Your task to perform on an android device: turn off notifications in google photos Image 0: 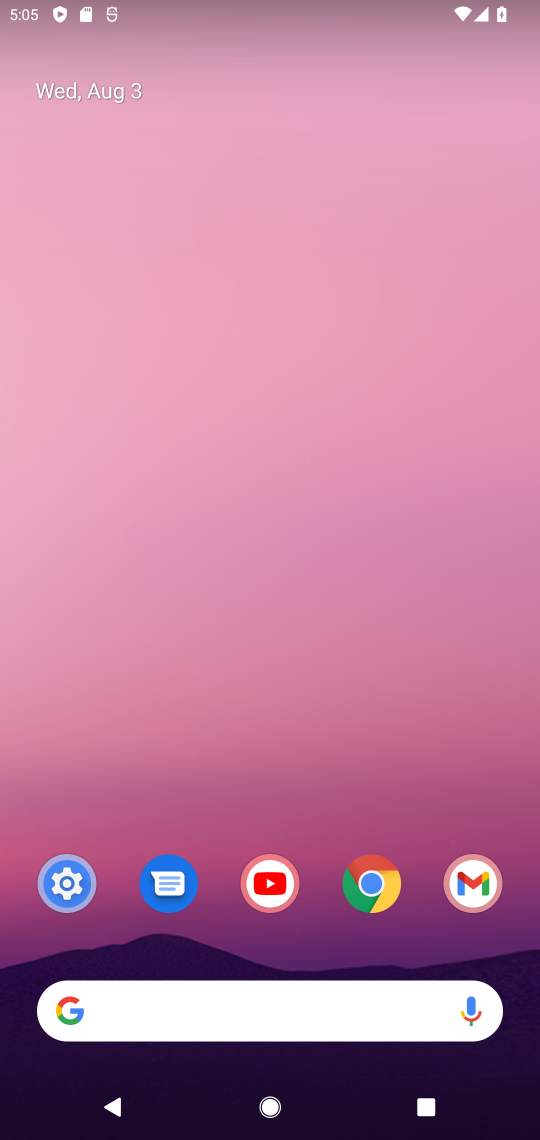
Step 0: drag from (238, 551) to (303, 95)
Your task to perform on an android device: turn off notifications in google photos Image 1: 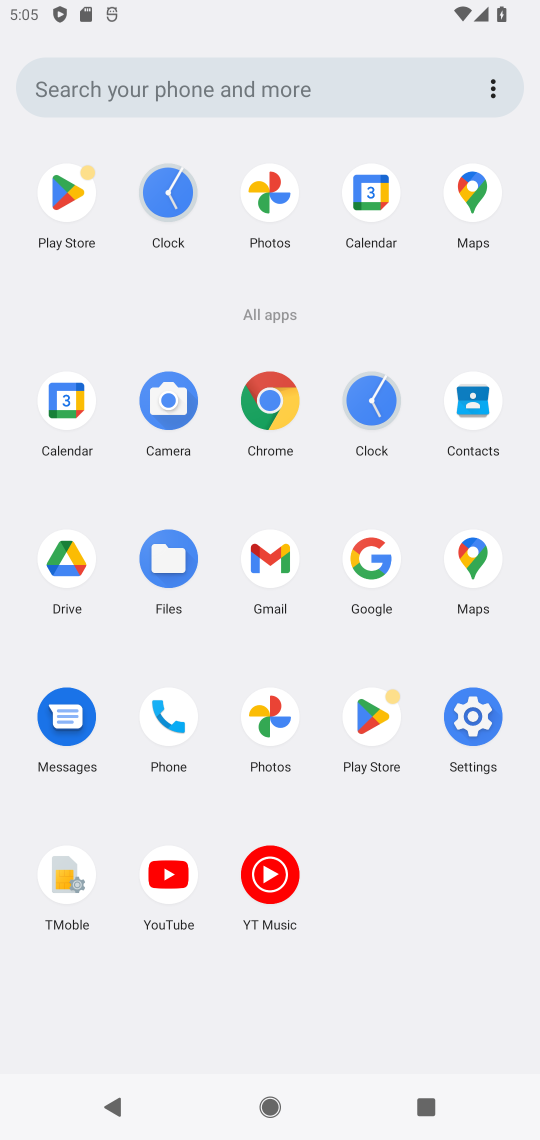
Step 1: click (263, 720)
Your task to perform on an android device: turn off notifications in google photos Image 2: 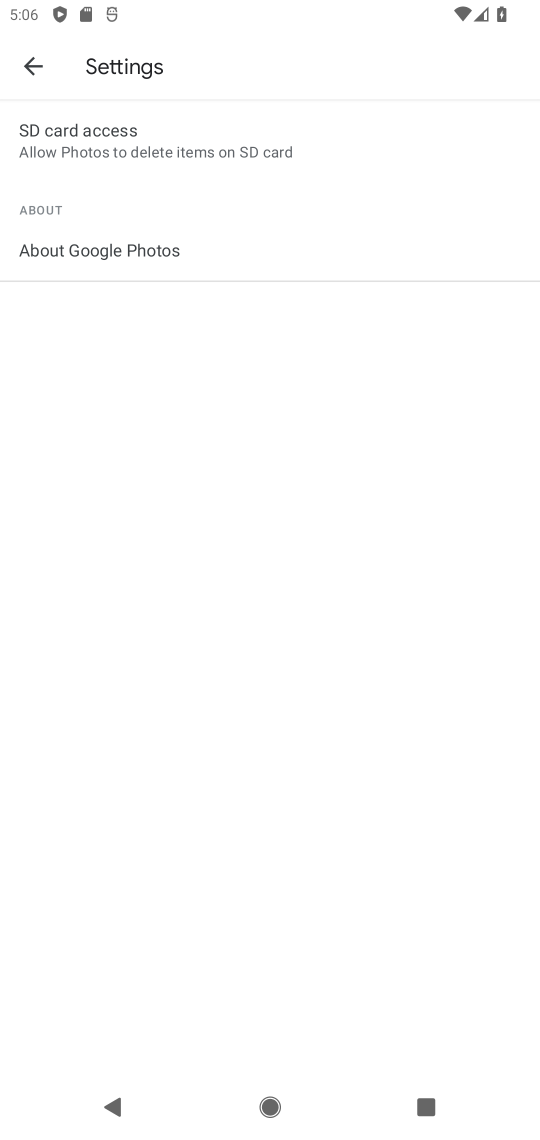
Step 2: click (23, 63)
Your task to perform on an android device: turn off notifications in google photos Image 3: 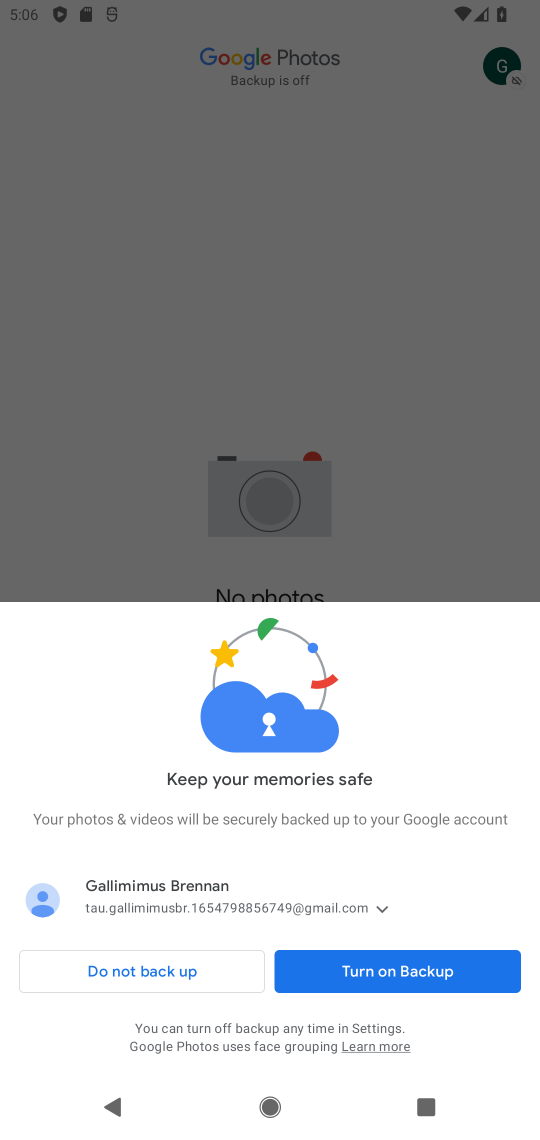
Step 3: click (377, 975)
Your task to perform on an android device: turn off notifications in google photos Image 4: 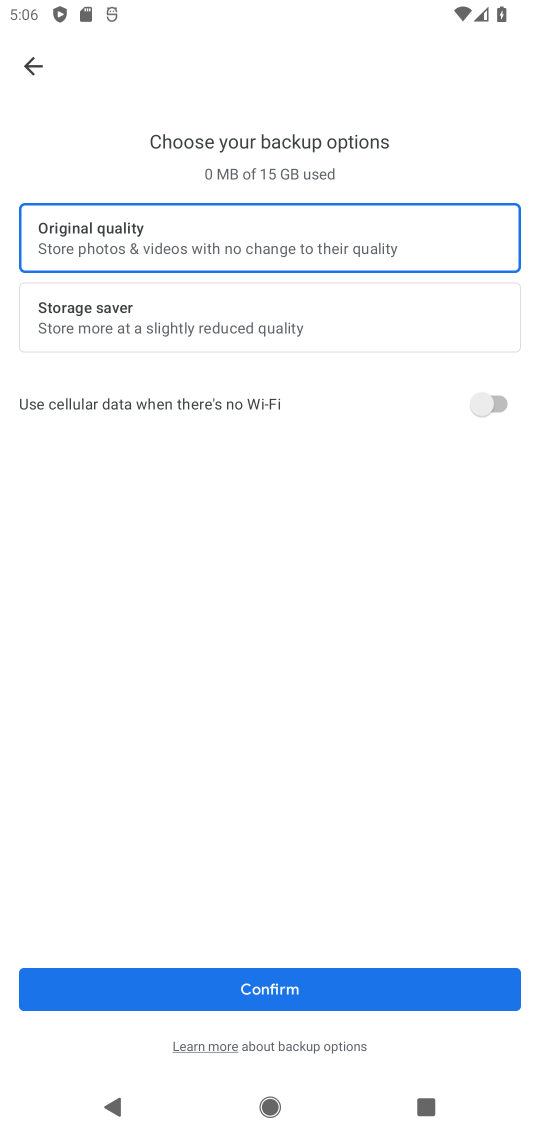
Step 4: click (308, 1001)
Your task to perform on an android device: turn off notifications in google photos Image 5: 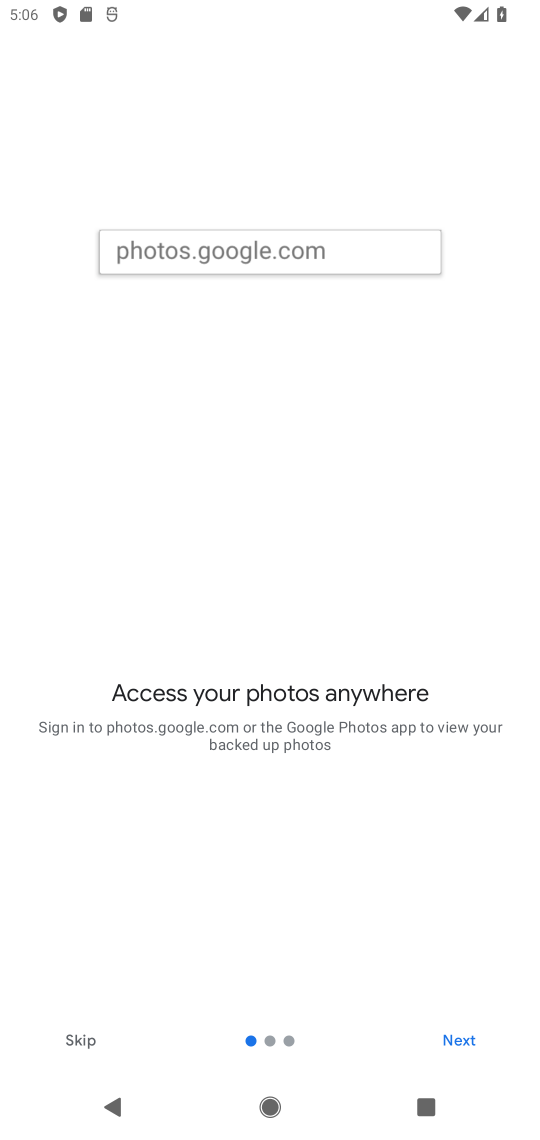
Step 5: click (445, 1043)
Your task to perform on an android device: turn off notifications in google photos Image 6: 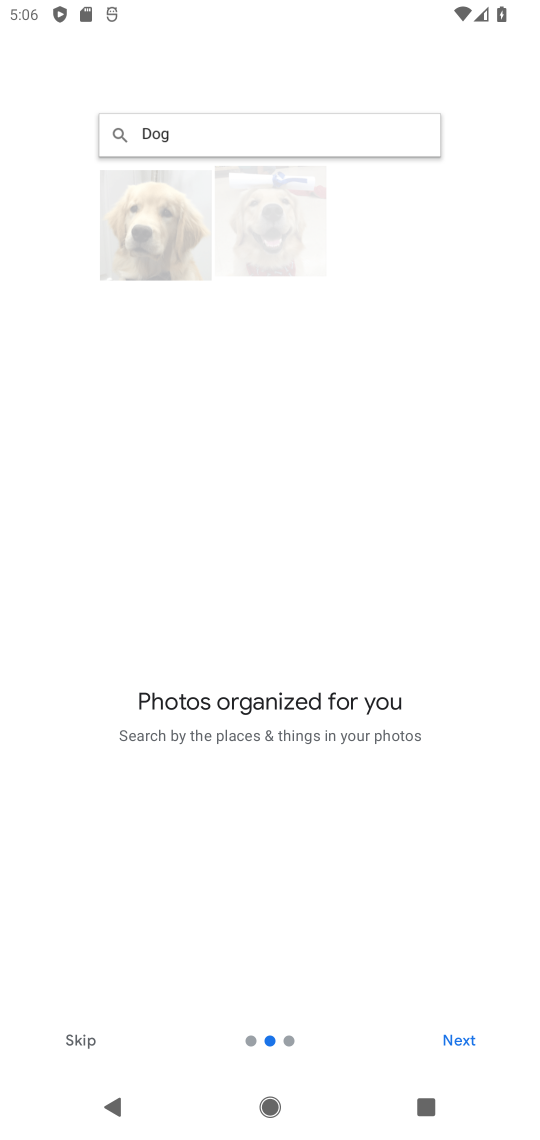
Step 6: click (445, 1043)
Your task to perform on an android device: turn off notifications in google photos Image 7: 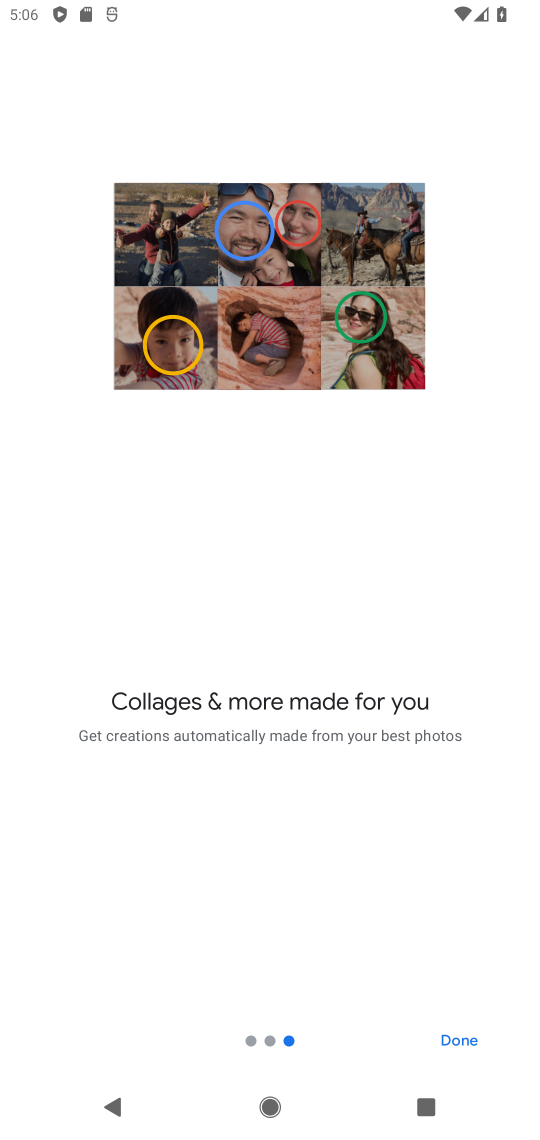
Step 7: click (445, 1043)
Your task to perform on an android device: turn off notifications in google photos Image 8: 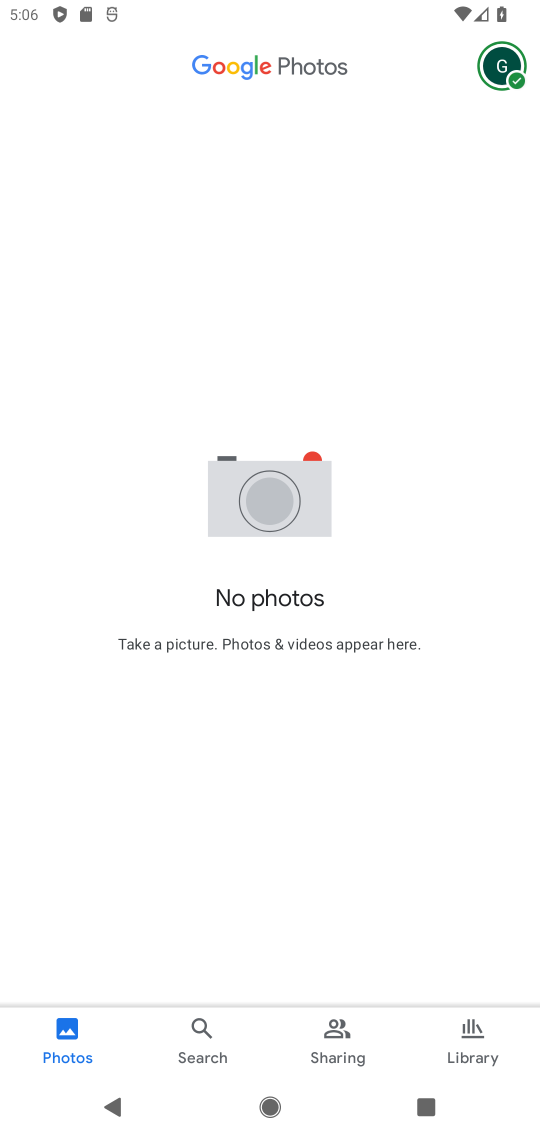
Step 8: click (445, 1043)
Your task to perform on an android device: turn off notifications in google photos Image 9: 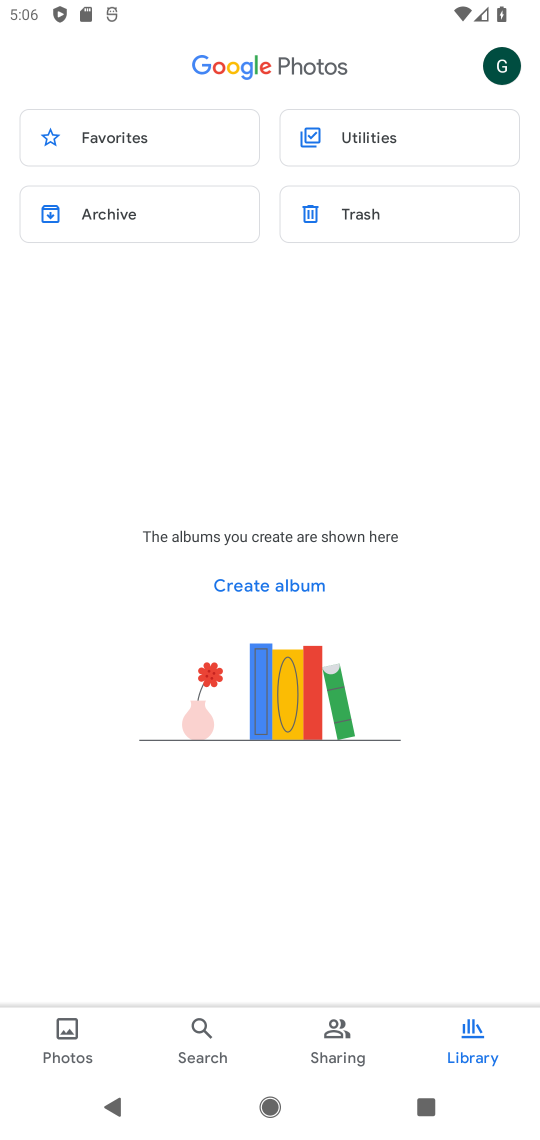
Step 9: click (494, 64)
Your task to perform on an android device: turn off notifications in google photos Image 10: 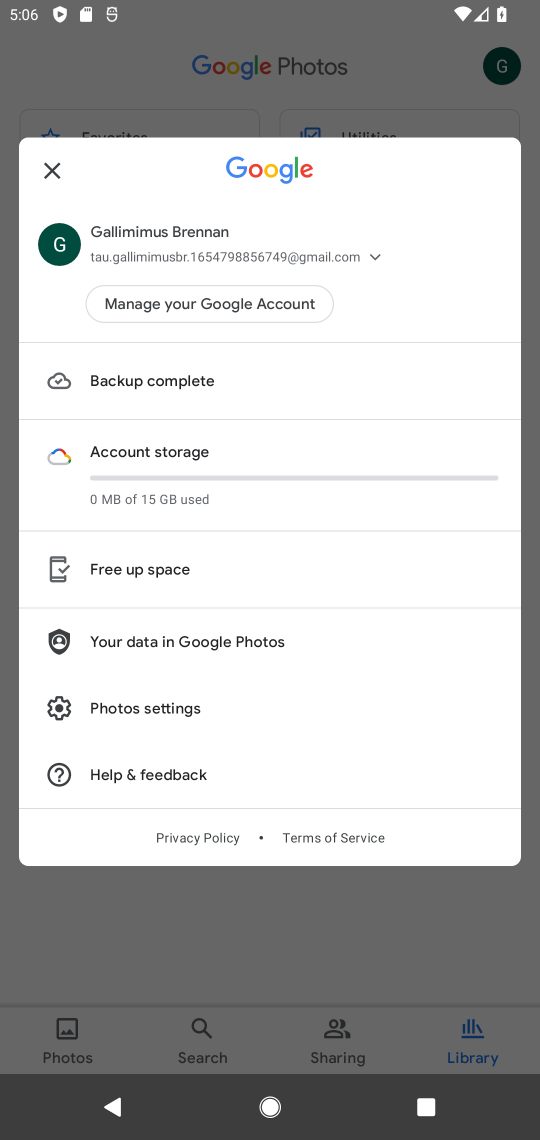
Step 10: click (141, 706)
Your task to perform on an android device: turn off notifications in google photos Image 11: 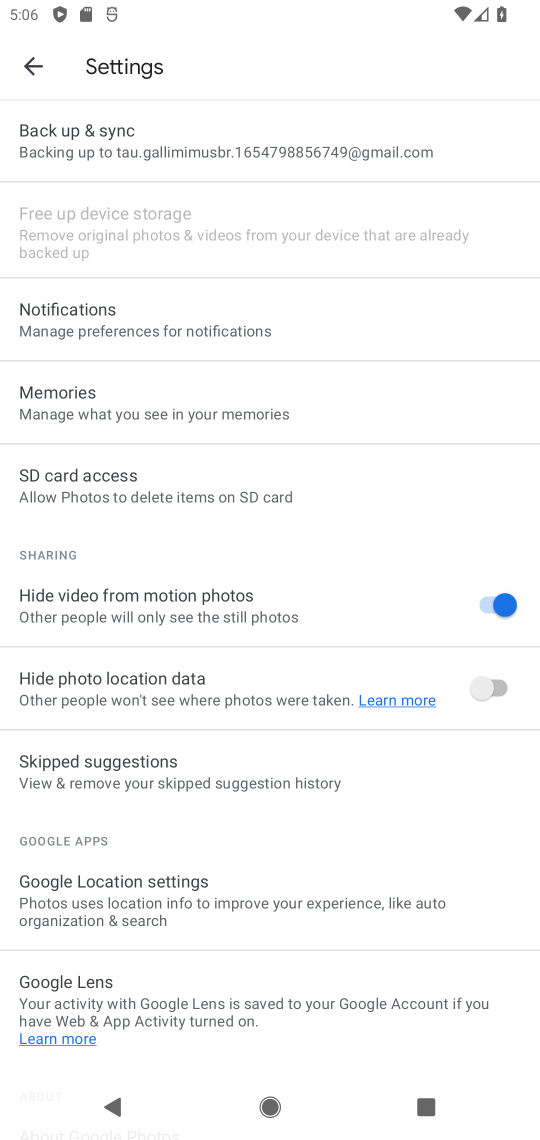
Step 11: click (74, 314)
Your task to perform on an android device: turn off notifications in google photos Image 12: 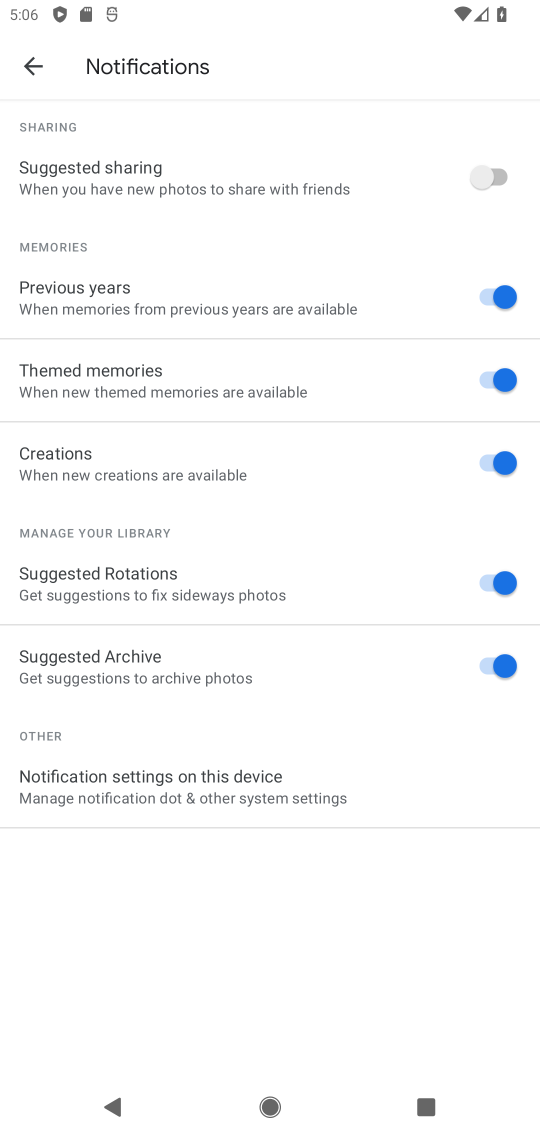
Step 12: click (162, 786)
Your task to perform on an android device: turn off notifications in google photos Image 13: 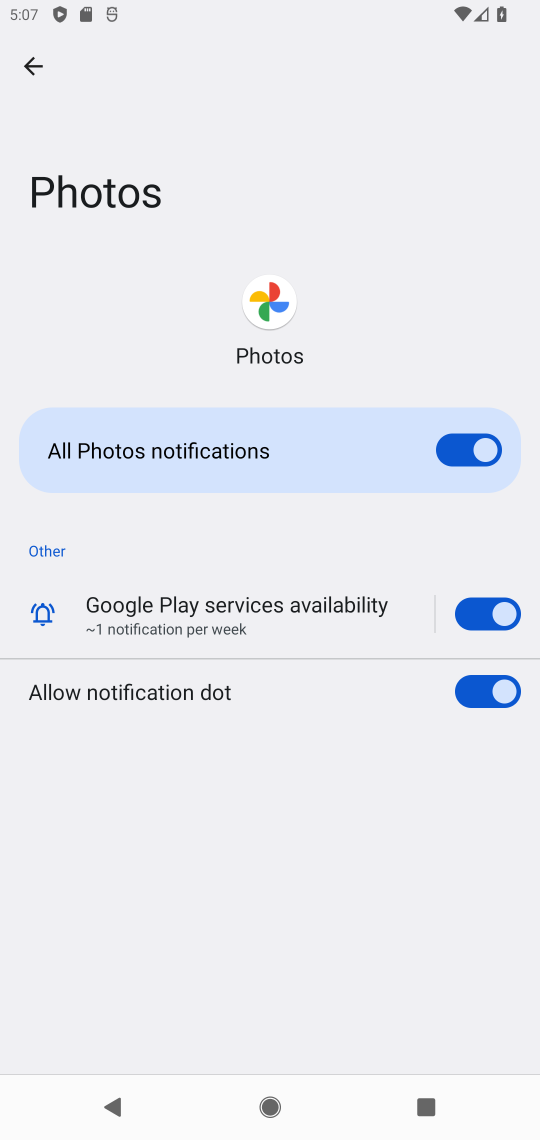
Step 13: click (459, 449)
Your task to perform on an android device: turn off notifications in google photos Image 14: 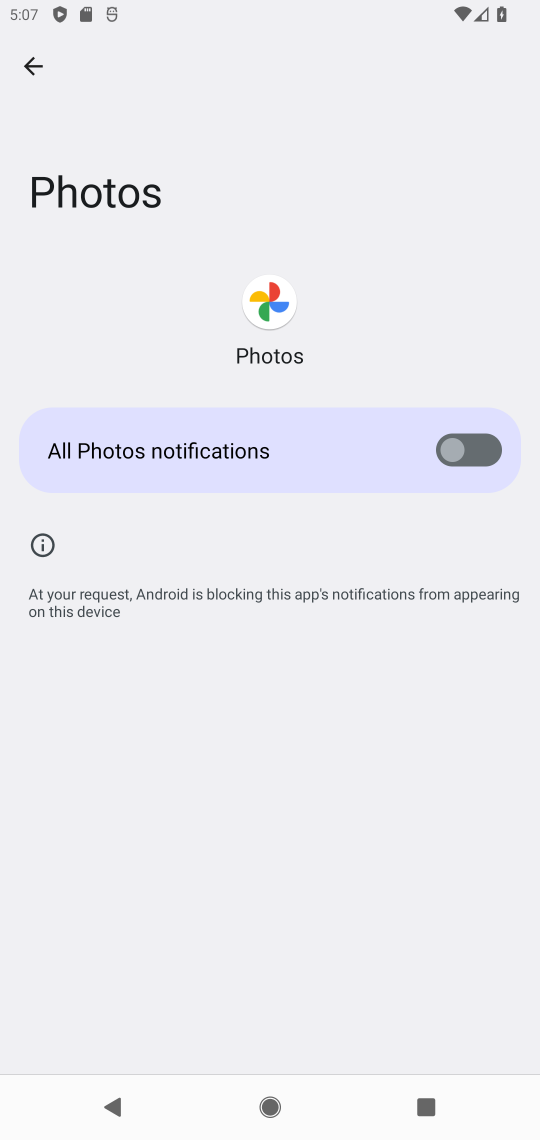
Step 14: task complete